Your task to perform on an android device: Open calendar and show me the third week of next month Image 0: 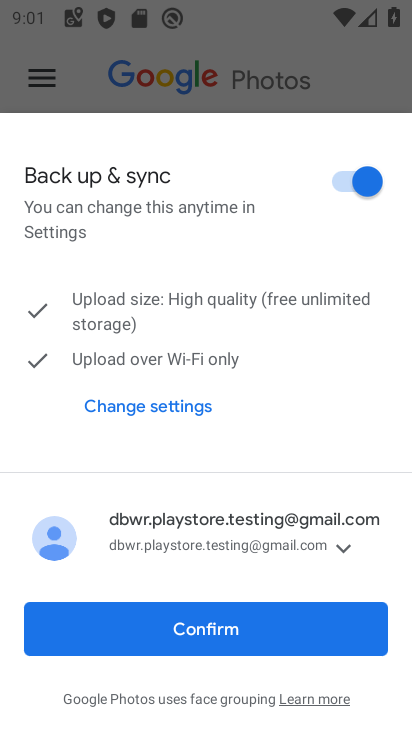
Step 0: press home button
Your task to perform on an android device: Open calendar and show me the third week of next month Image 1: 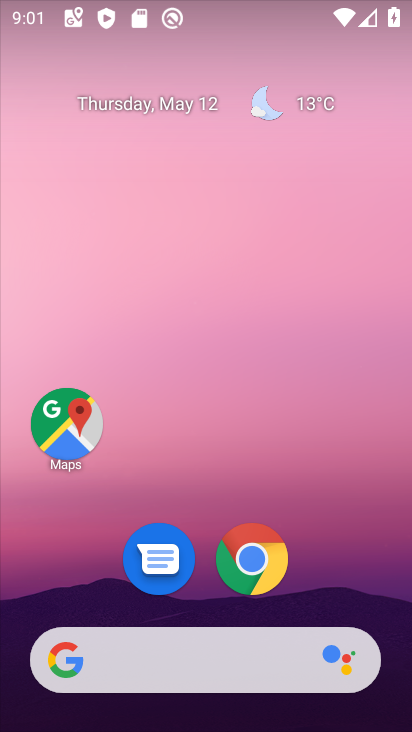
Step 1: drag from (81, 598) to (347, 141)
Your task to perform on an android device: Open calendar and show me the third week of next month Image 2: 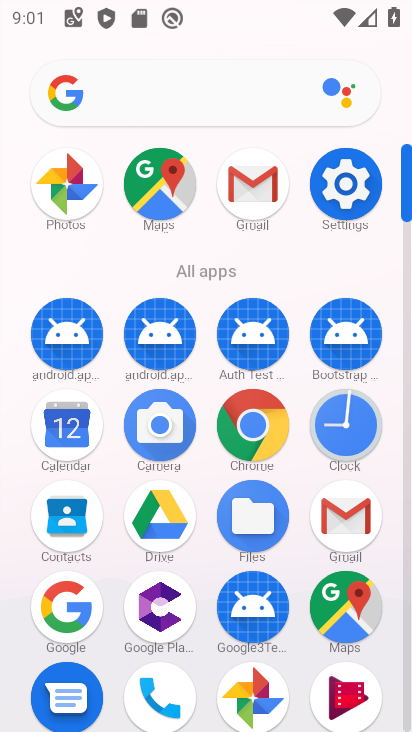
Step 2: click (68, 527)
Your task to perform on an android device: Open calendar and show me the third week of next month Image 3: 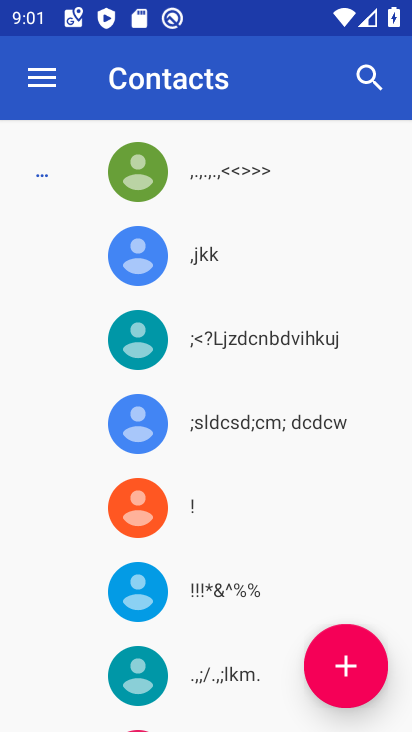
Step 3: press back button
Your task to perform on an android device: Open calendar and show me the third week of next month Image 4: 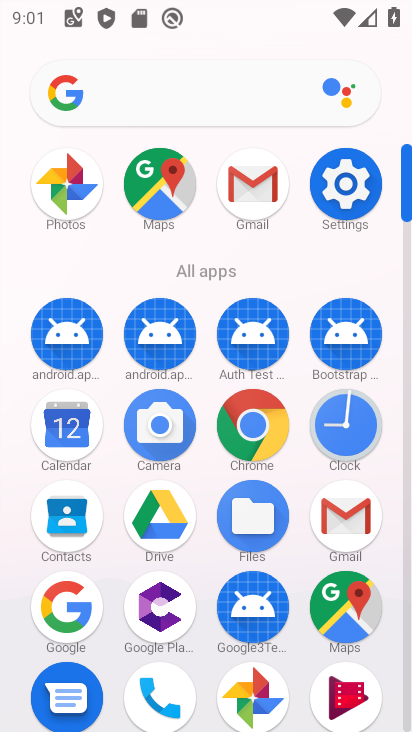
Step 4: click (79, 425)
Your task to perform on an android device: Open calendar and show me the third week of next month Image 5: 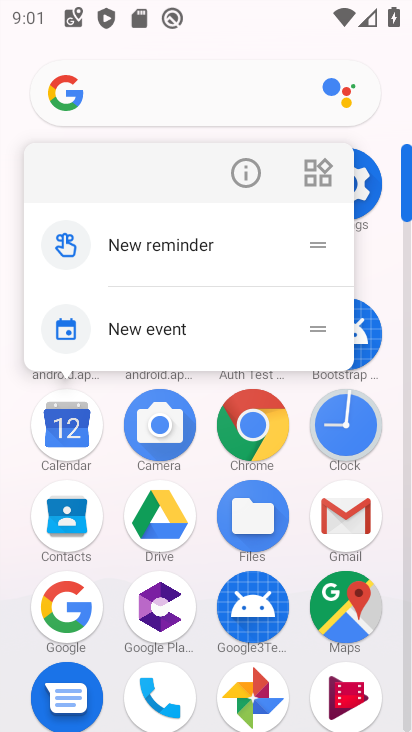
Step 5: click (78, 420)
Your task to perform on an android device: Open calendar and show me the third week of next month Image 6: 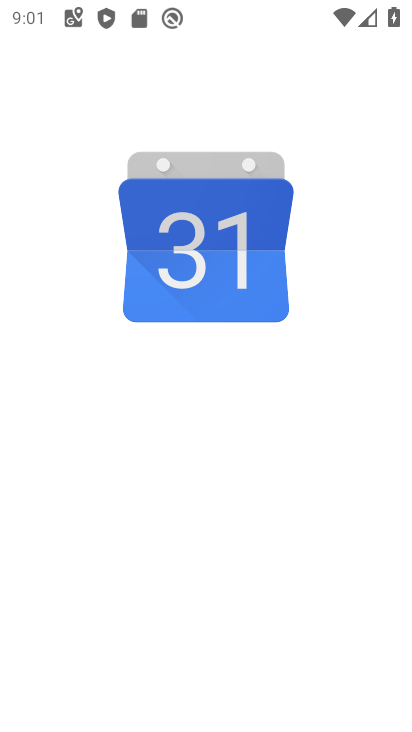
Step 6: click (73, 420)
Your task to perform on an android device: Open calendar and show me the third week of next month Image 7: 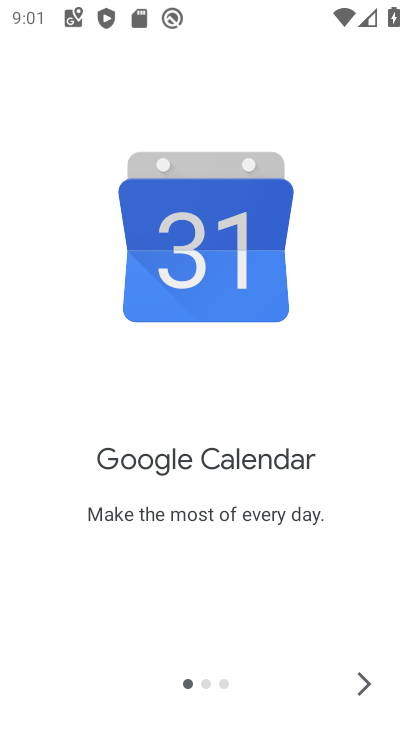
Step 7: click (353, 678)
Your task to perform on an android device: Open calendar and show me the third week of next month Image 8: 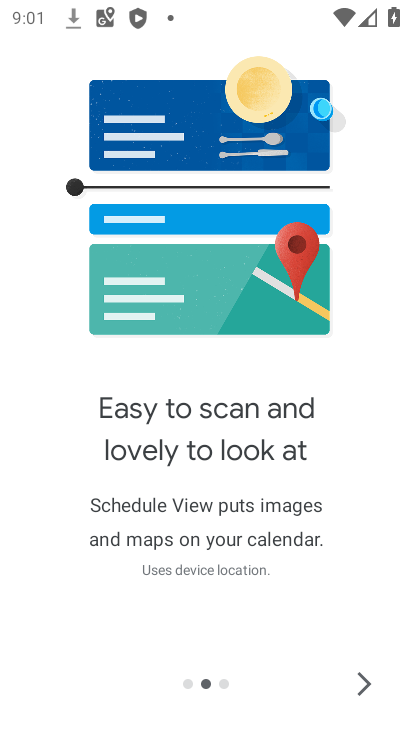
Step 8: click (353, 678)
Your task to perform on an android device: Open calendar and show me the third week of next month Image 9: 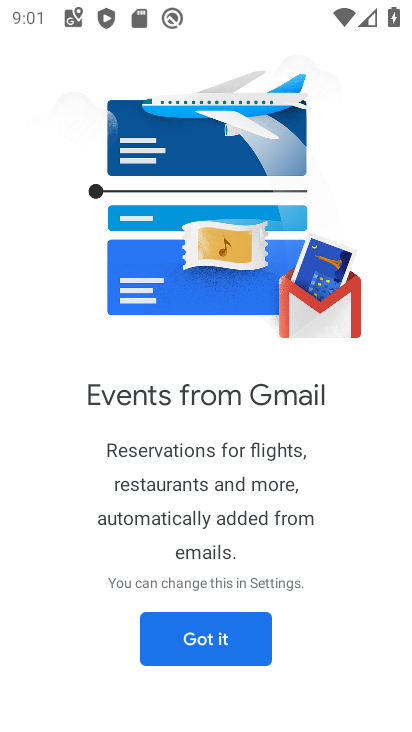
Step 9: click (211, 645)
Your task to perform on an android device: Open calendar and show me the third week of next month Image 10: 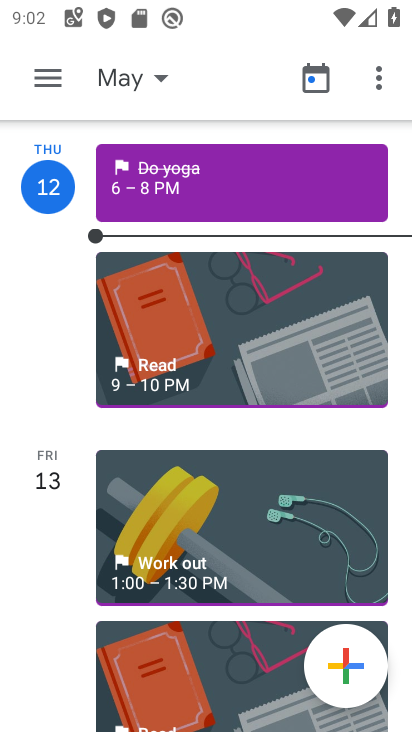
Step 10: click (60, 65)
Your task to perform on an android device: Open calendar and show me the third week of next month Image 11: 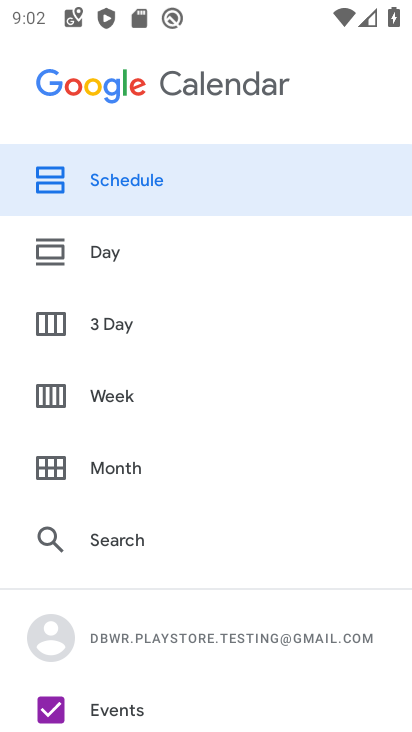
Step 11: click (156, 414)
Your task to perform on an android device: Open calendar and show me the third week of next month Image 12: 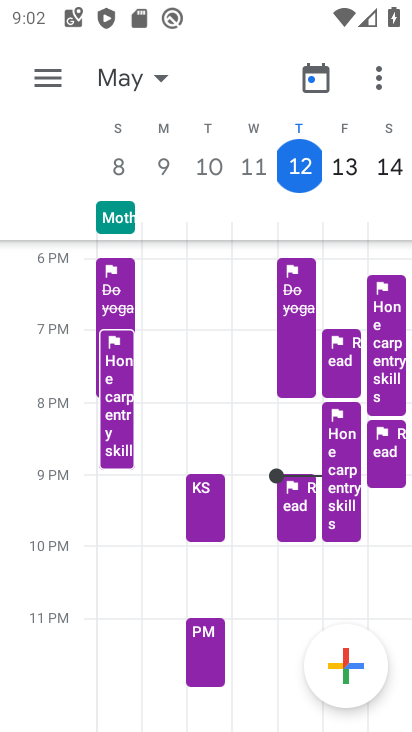
Step 12: click (140, 84)
Your task to perform on an android device: Open calendar and show me the third week of next month Image 13: 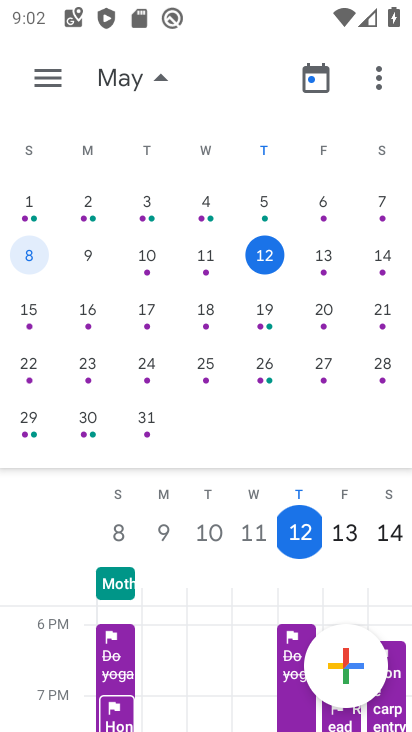
Step 13: drag from (394, 412) to (2, 340)
Your task to perform on an android device: Open calendar and show me the third week of next month Image 14: 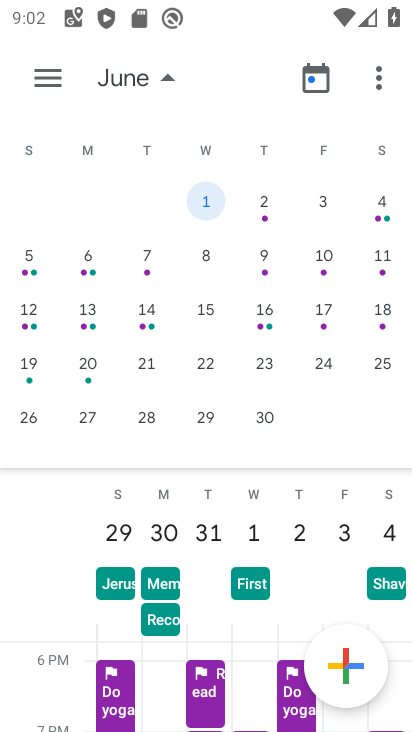
Step 14: click (35, 368)
Your task to perform on an android device: Open calendar and show me the third week of next month Image 15: 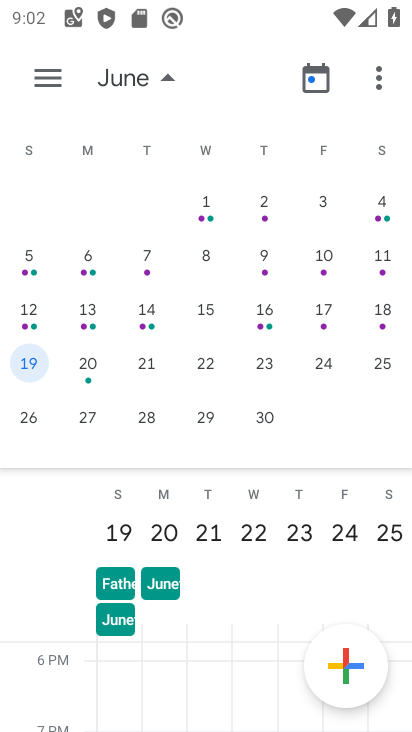
Step 15: click (163, 84)
Your task to perform on an android device: Open calendar and show me the third week of next month Image 16: 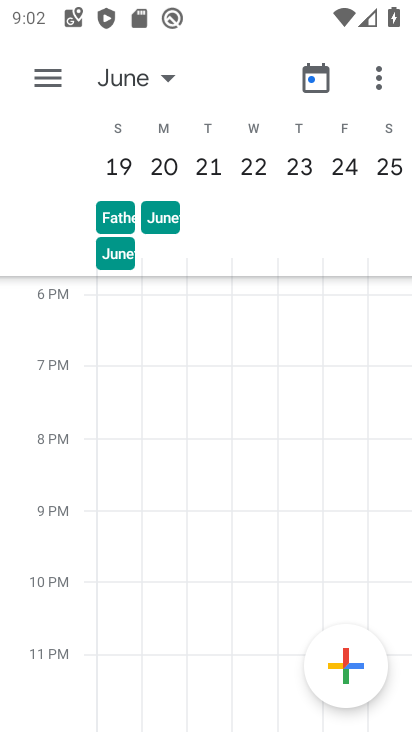
Step 16: task complete